Your task to perform on an android device: Is it going to rain this weekend? Image 0: 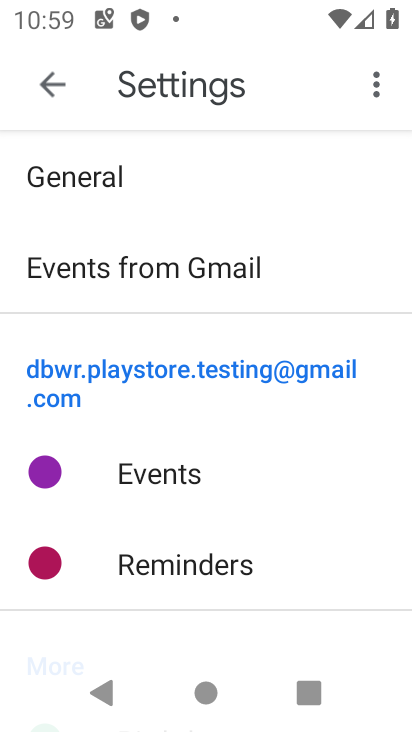
Step 0: press home button
Your task to perform on an android device: Is it going to rain this weekend? Image 1: 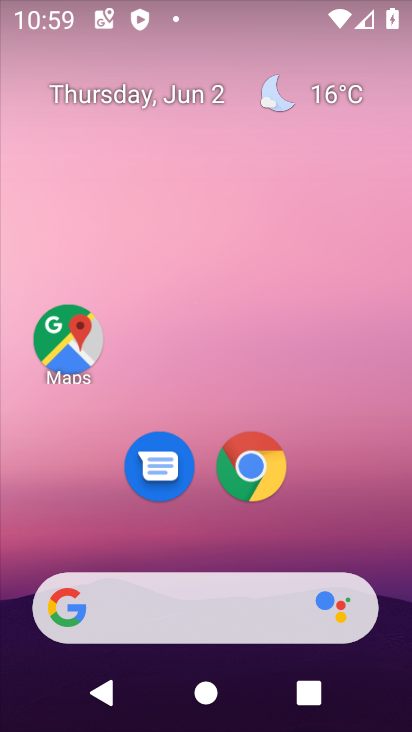
Step 1: drag from (219, 535) to (228, 175)
Your task to perform on an android device: Is it going to rain this weekend? Image 2: 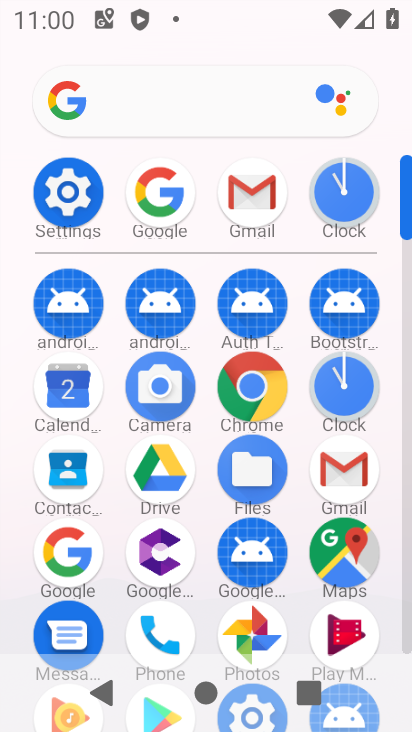
Step 2: click (50, 549)
Your task to perform on an android device: Is it going to rain this weekend? Image 3: 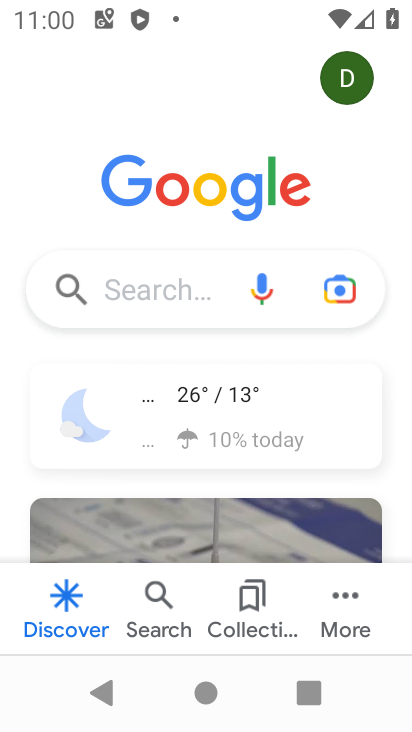
Step 3: click (118, 422)
Your task to perform on an android device: Is it going to rain this weekend? Image 4: 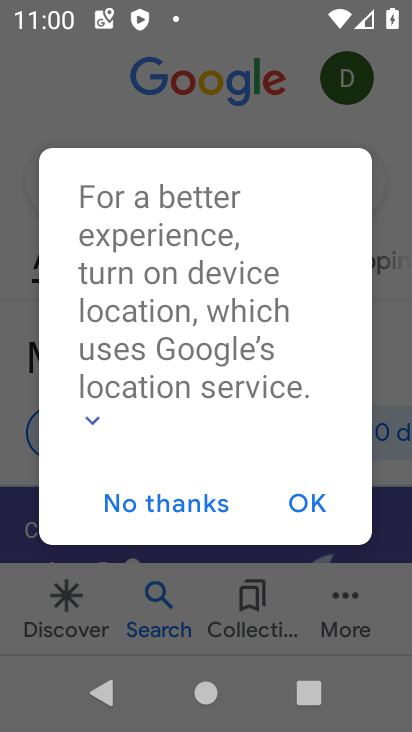
Step 4: click (310, 492)
Your task to perform on an android device: Is it going to rain this weekend? Image 5: 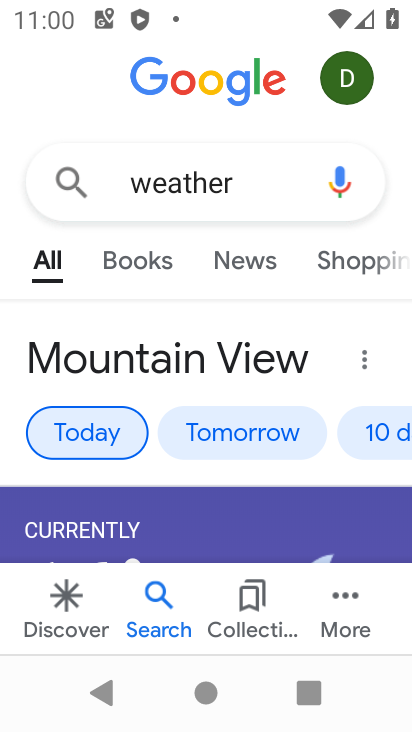
Step 5: click (390, 434)
Your task to perform on an android device: Is it going to rain this weekend? Image 6: 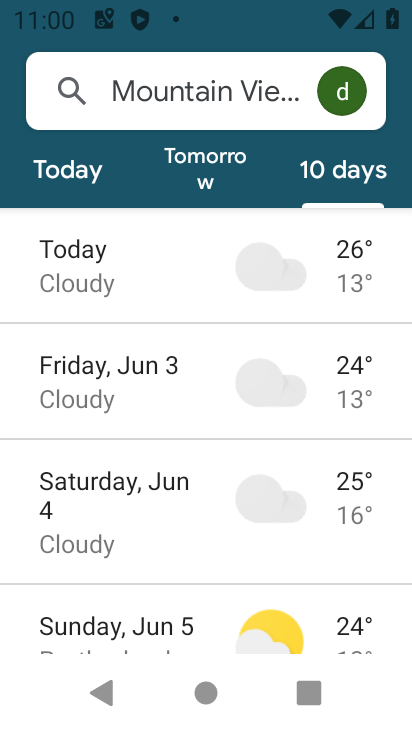
Step 6: task complete